Your task to perform on an android device: turn off picture-in-picture Image 0: 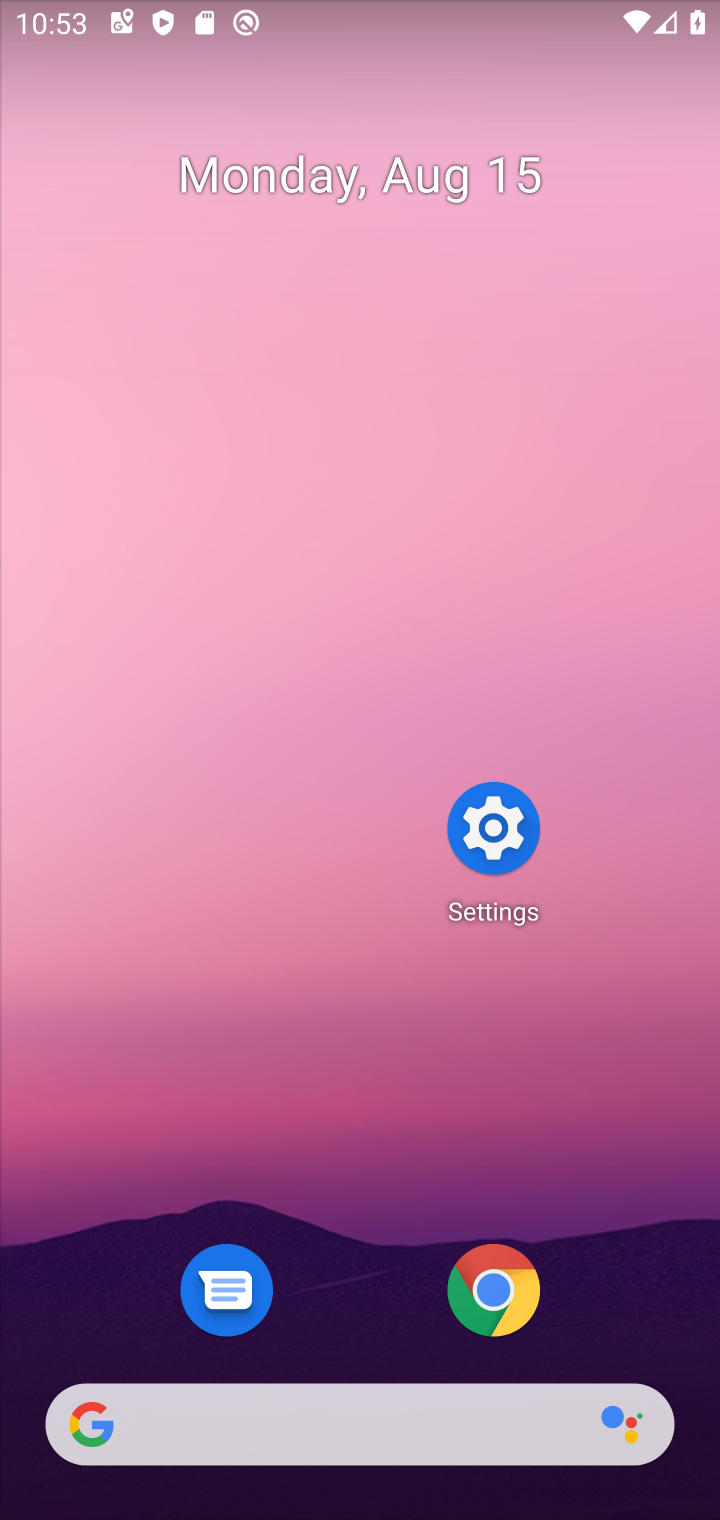
Step 0: press home button
Your task to perform on an android device: turn off picture-in-picture Image 1: 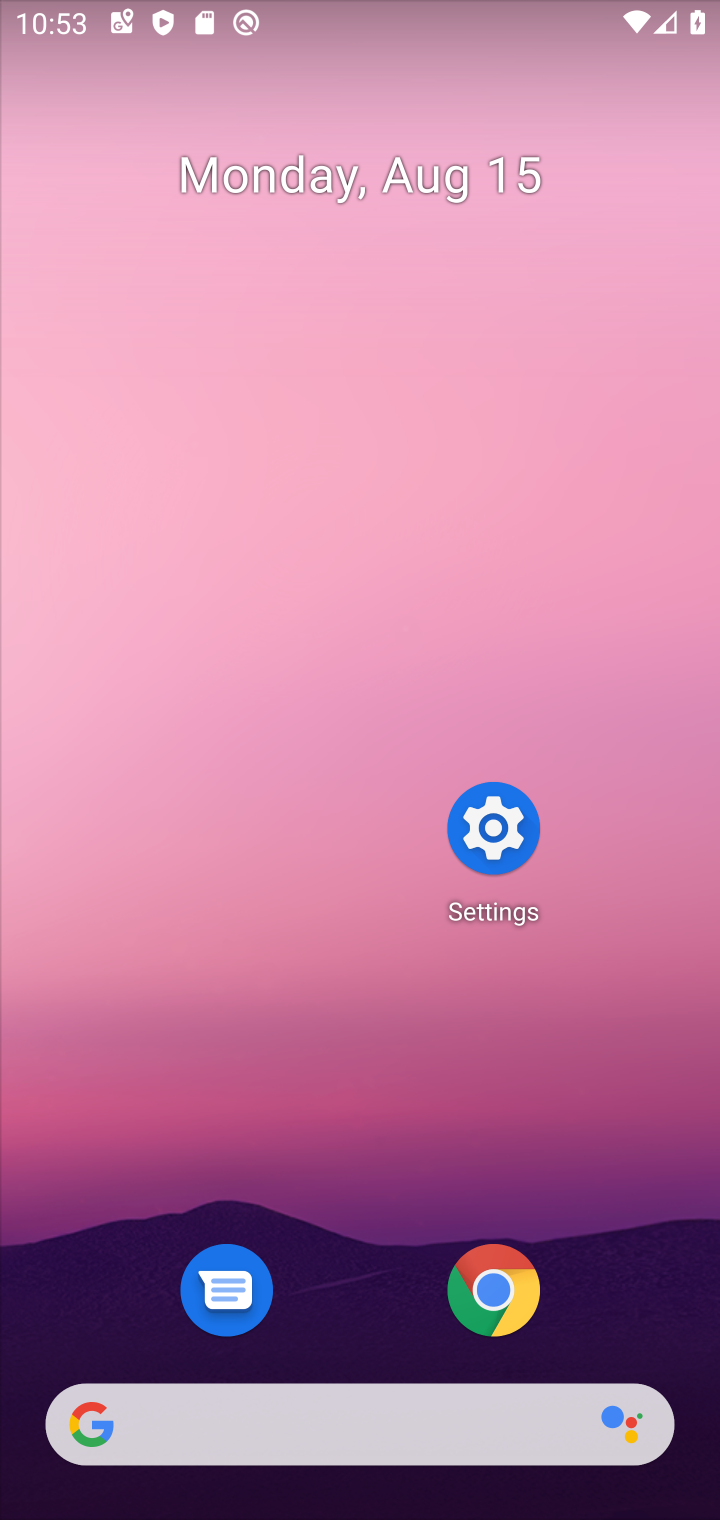
Step 1: click (500, 1271)
Your task to perform on an android device: turn off picture-in-picture Image 2: 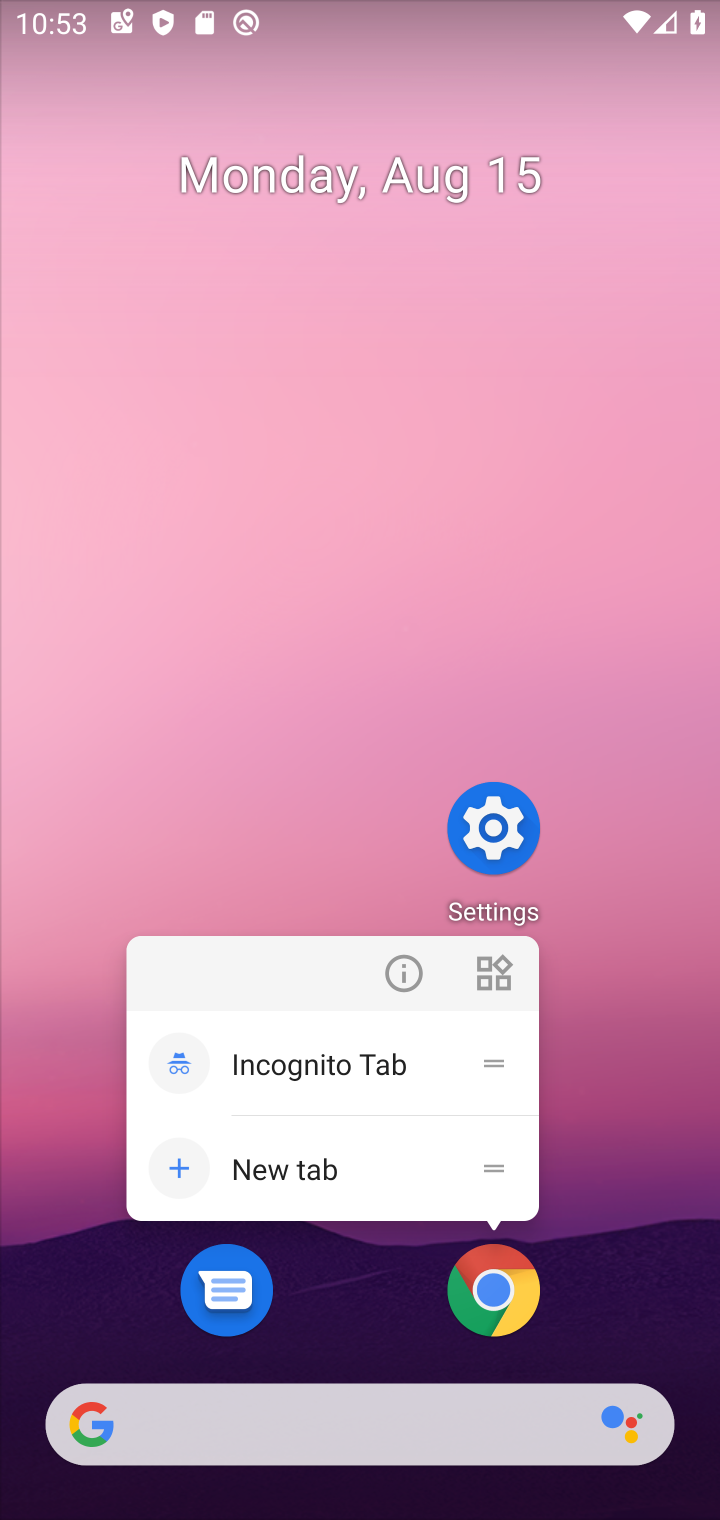
Step 2: drag from (500, 1274) to (432, 1168)
Your task to perform on an android device: turn off picture-in-picture Image 3: 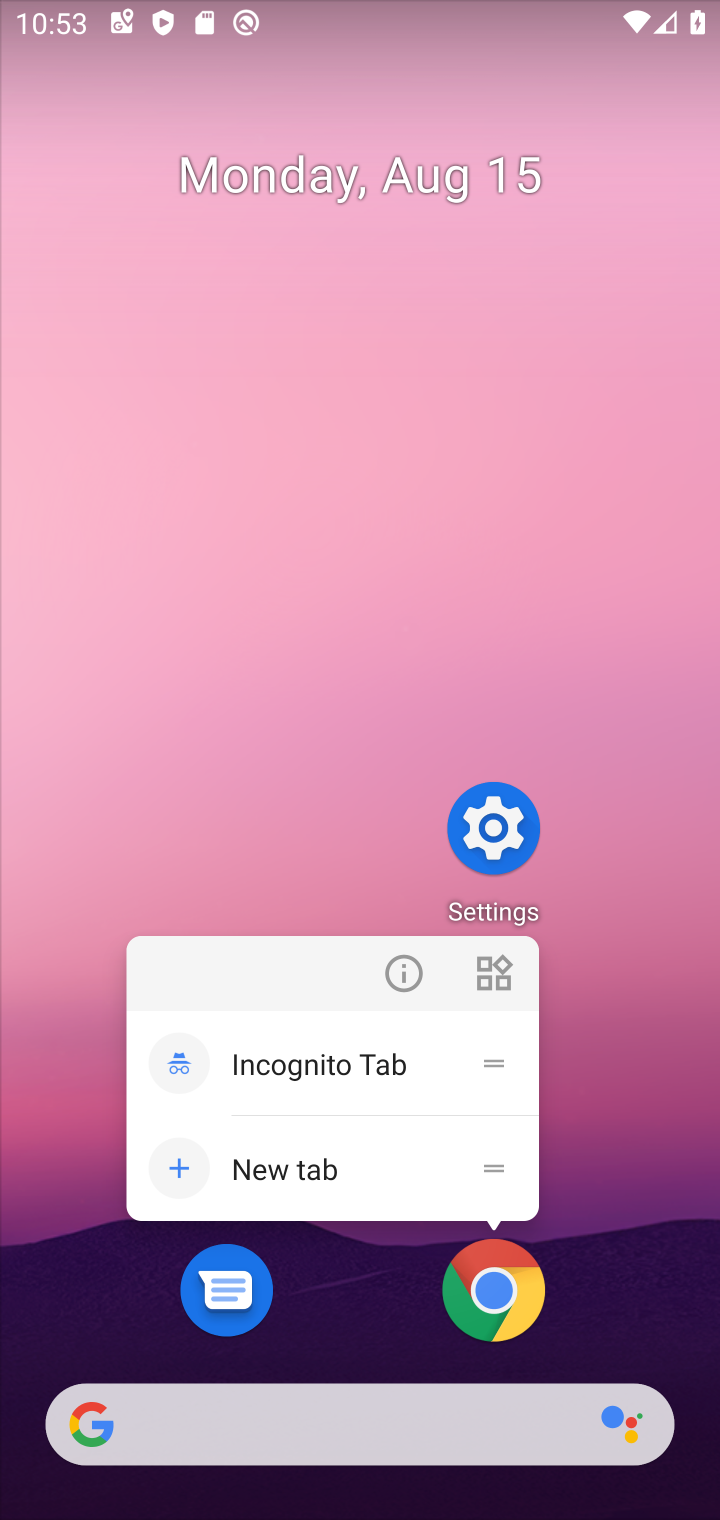
Step 3: click (415, 952)
Your task to perform on an android device: turn off picture-in-picture Image 4: 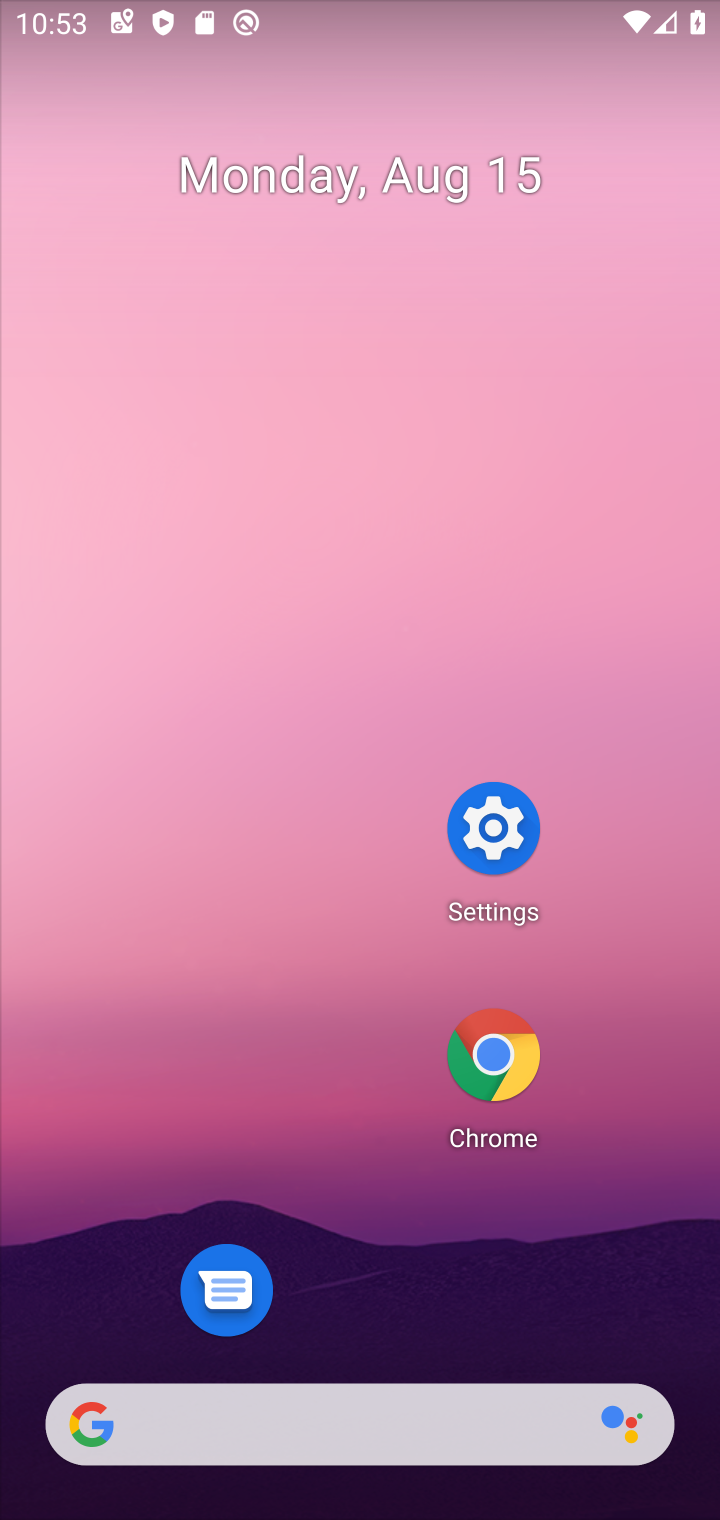
Step 4: click (486, 1067)
Your task to perform on an android device: turn off picture-in-picture Image 5: 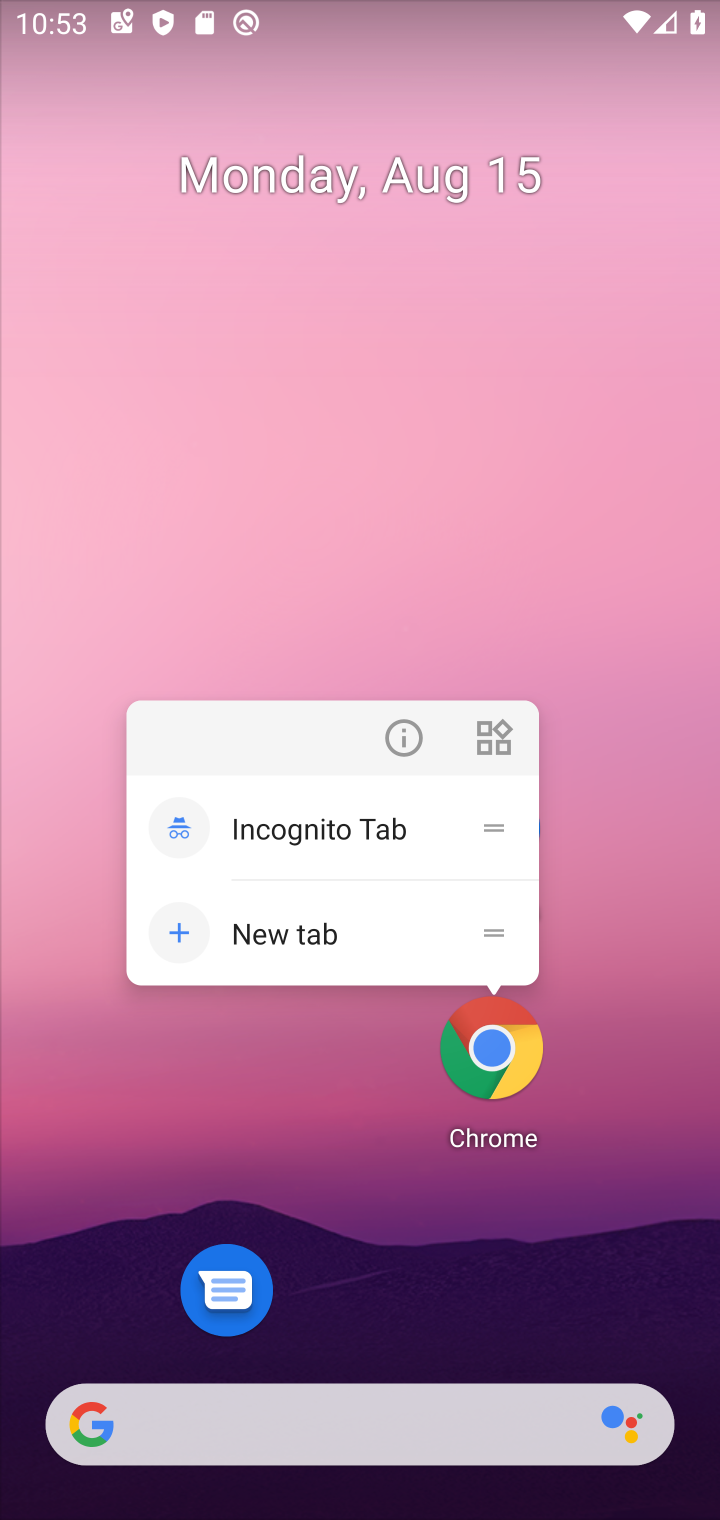
Step 5: click (399, 731)
Your task to perform on an android device: turn off picture-in-picture Image 6: 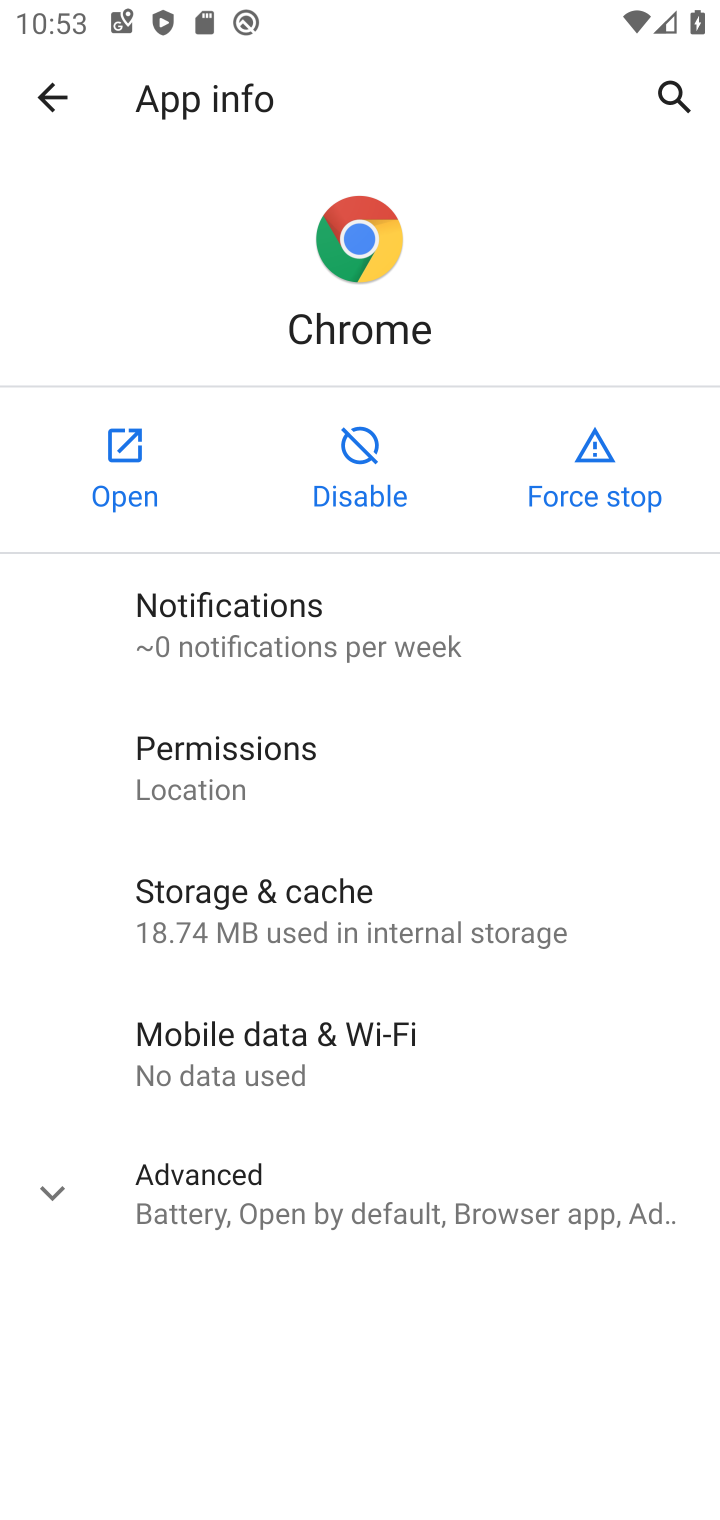
Step 6: click (257, 1166)
Your task to perform on an android device: turn off picture-in-picture Image 7: 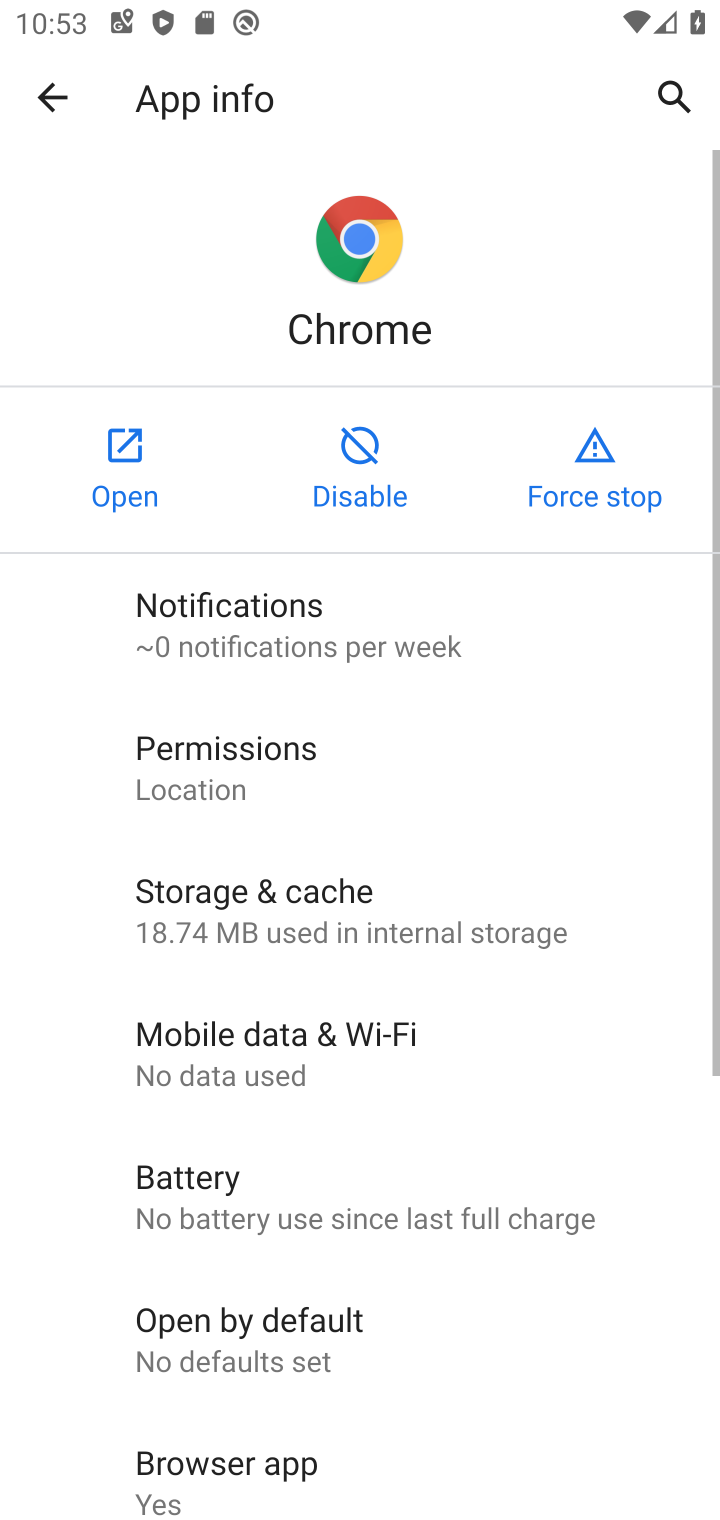
Step 7: drag from (381, 1352) to (712, 88)
Your task to perform on an android device: turn off picture-in-picture Image 8: 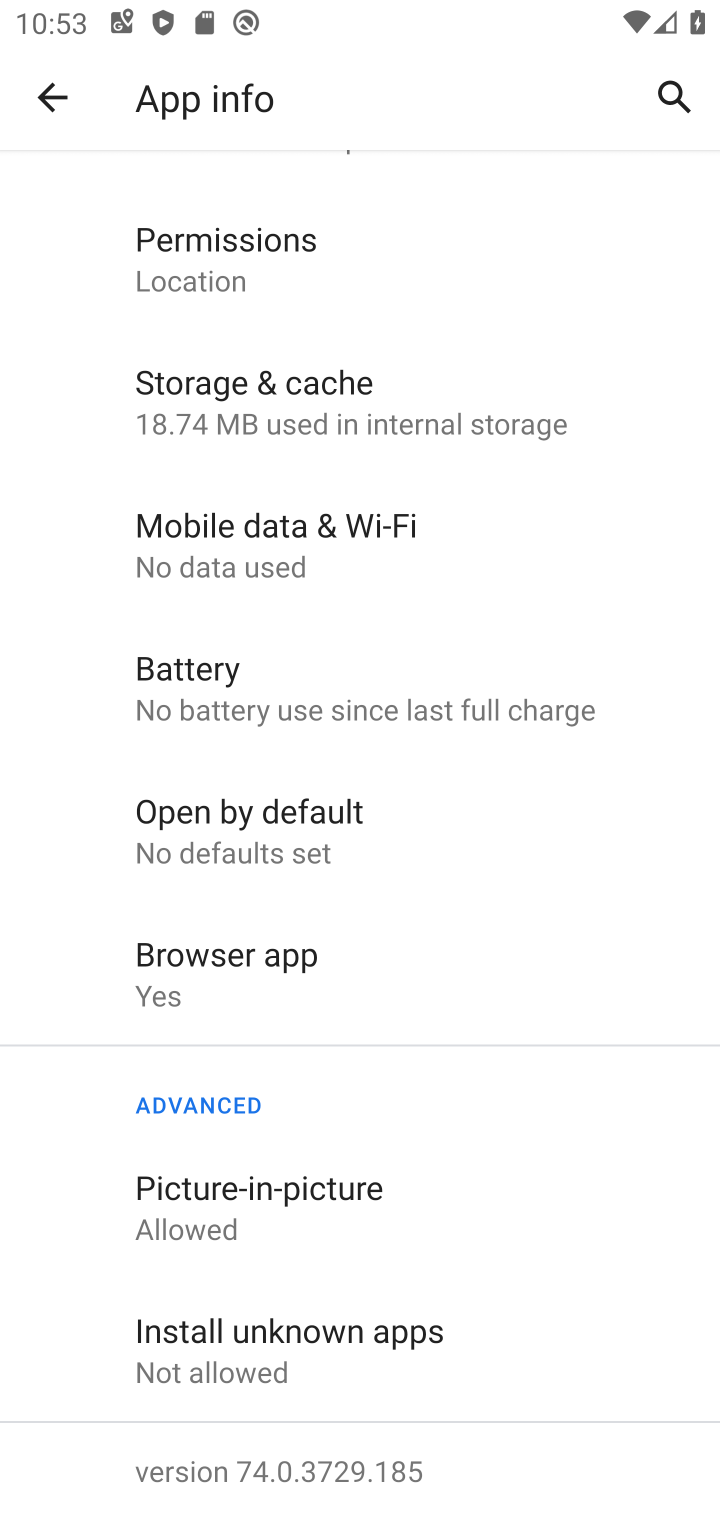
Step 8: click (298, 1198)
Your task to perform on an android device: turn off picture-in-picture Image 9: 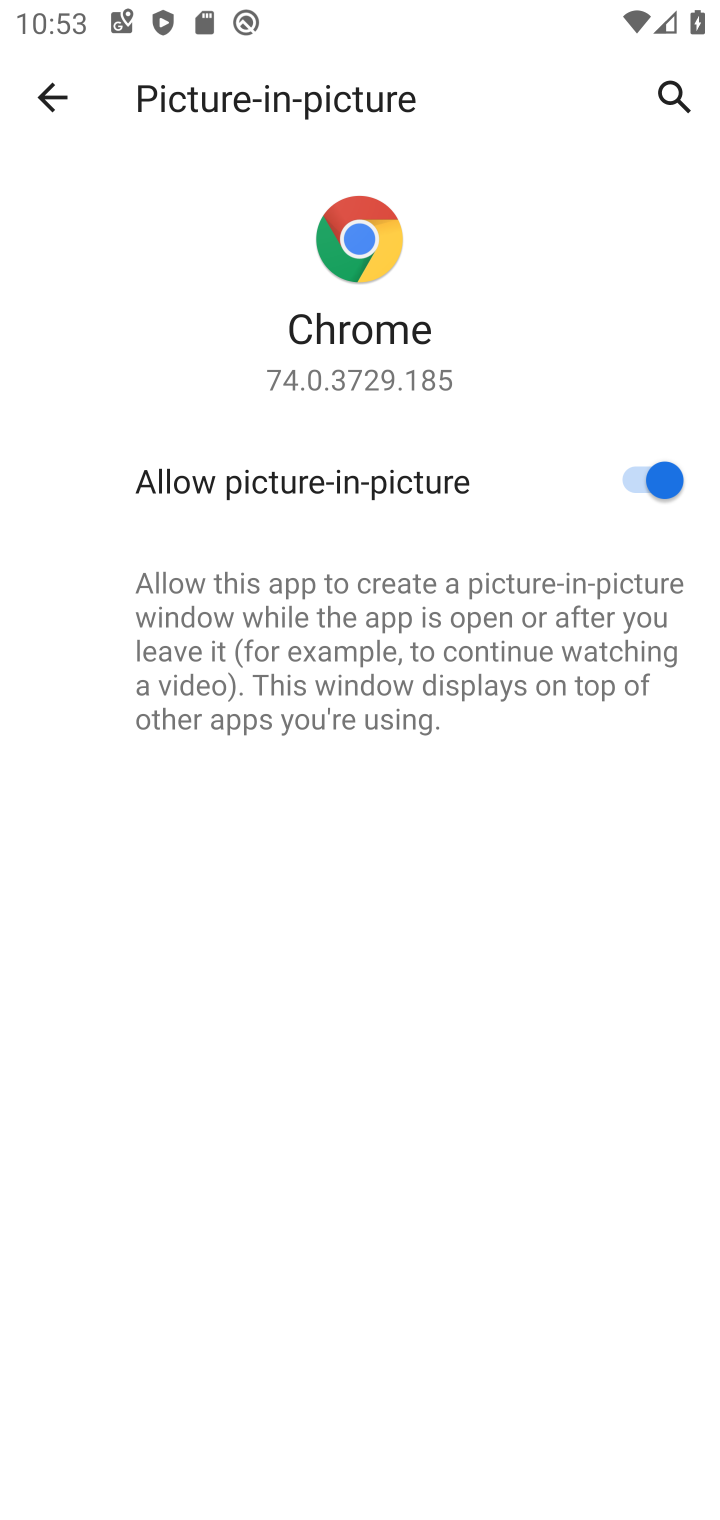
Step 9: click (651, 450)
Your task to perform on an android device: turn off picture-in-picture Image 10: 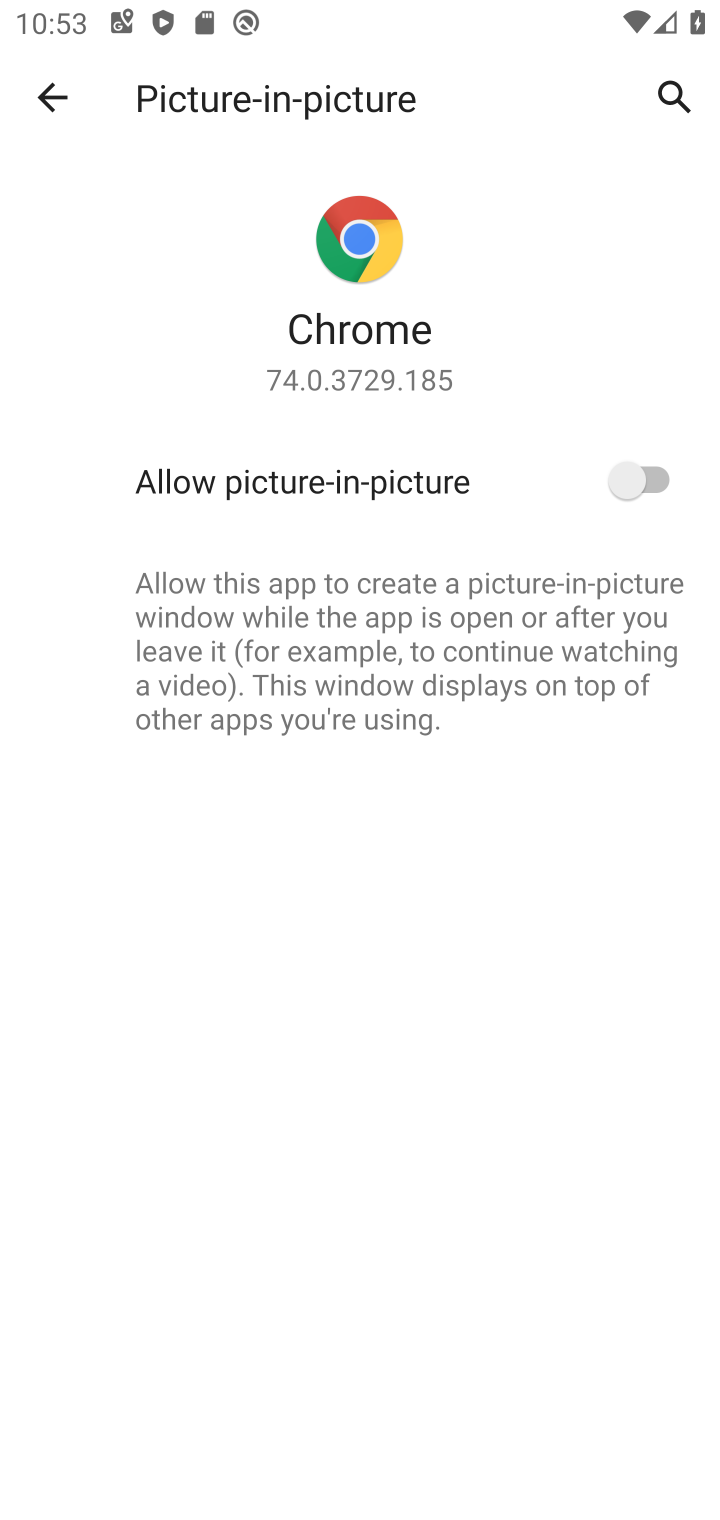
Step 10: task complete